Your task to perform on an android device: change the clock display to analog Image 0: 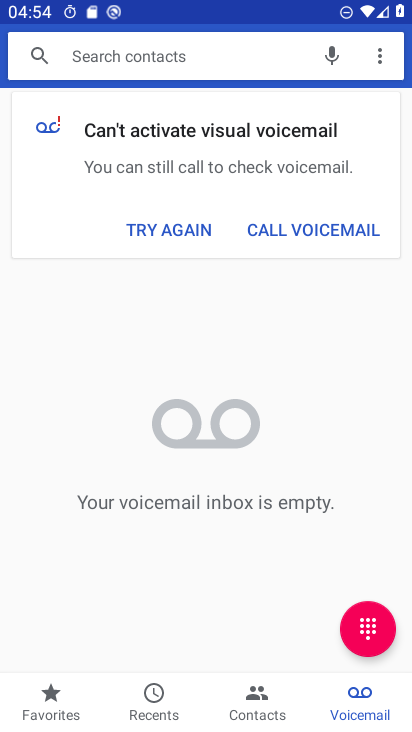
Step 0: press home button
Your task to perform on an android device: change the clock display to analog Image 1: 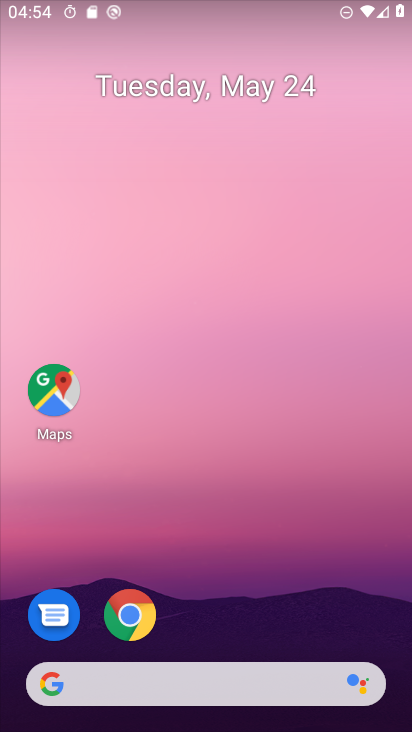
Step 1: drag from (243, 508) to (292, 105)
Your task to perform on an android device: change the clock display to analog Image 2: 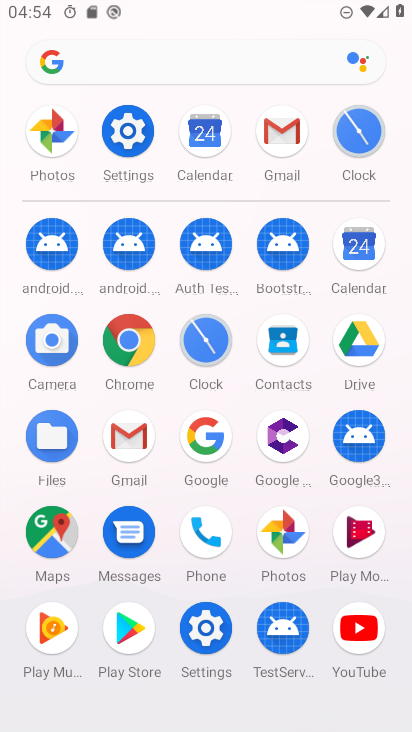
Step 2: click (202, 347)
Your task to perform on an android device: change the clock display to analog Image 3: 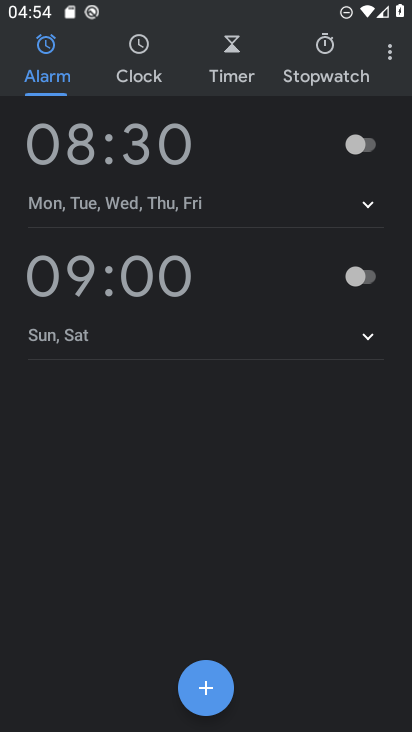
Step 3: click (385, 49)
Your task to perform on an android device: change the clock display to analog Image 4: 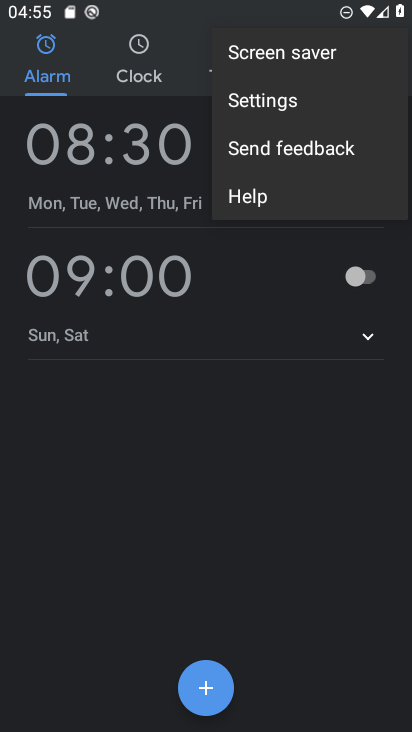
Step 4: click (306, 102)
Your task to perform on an android device: change the clock display to analog Image 5: 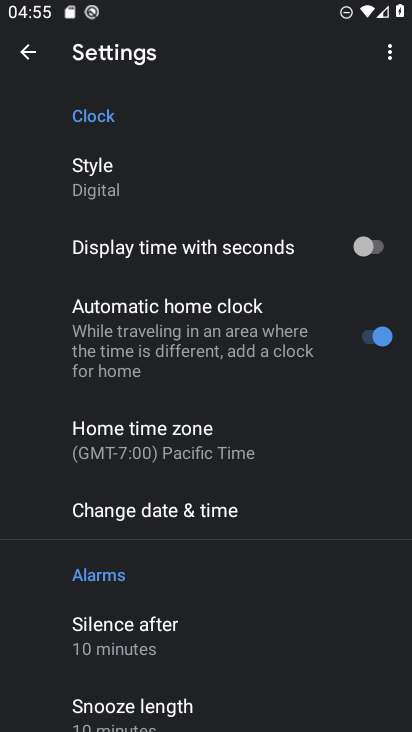
Step 5: click (147, 172)
Your task to perform on an android device: change the clock display to analog Image 6: 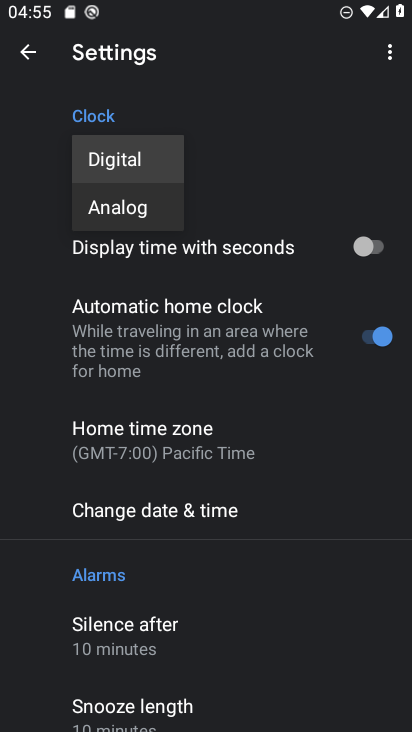
Step 6: click (106, 212)
Your task to perform on an android device: change the clock display to analog Image 7: 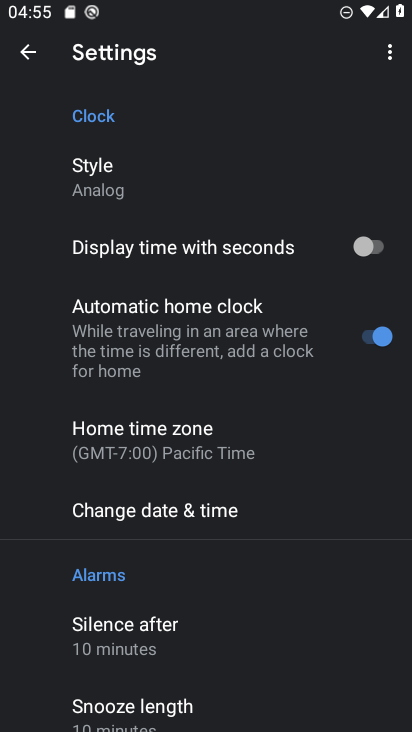
Step 7: task complete